Your task to perform on an android device: turn pop-ups on in chrome Image 0: 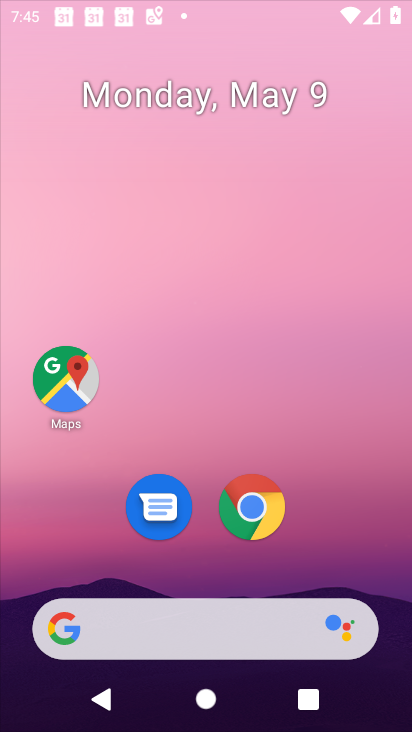
Step 0: click (240, 243)
Your task to perform on an android device: turn pop-ups on in chrome Image 1: 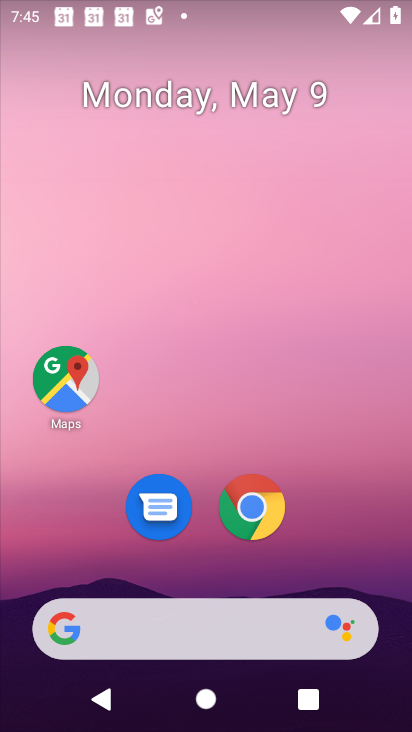
Step 1: drag from (270, 661) to (266, 260)
Your task to perform on an android device: turn pop-ups on in chrome Image 2: 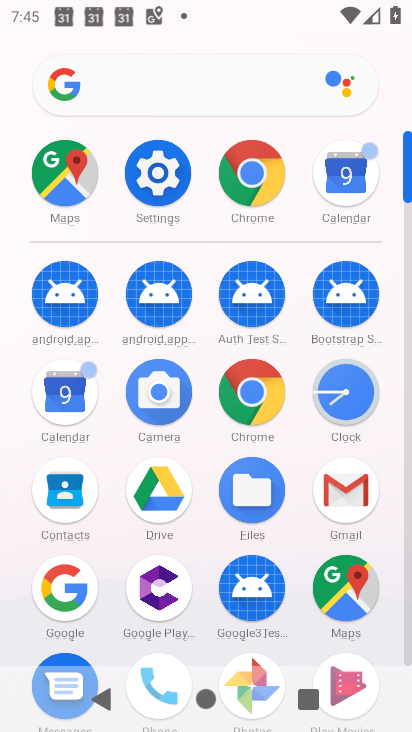
Step 2: click (248, 191)
Your task to perform on an android device: turn pop-ups on in chrome Image 3: 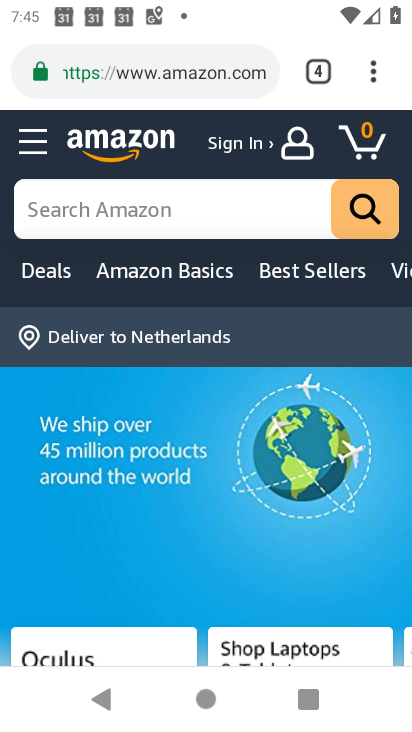
Step 3: click (370, 86)
Your task to perform on an android device: turn pop-ups on in chrome Image 4: 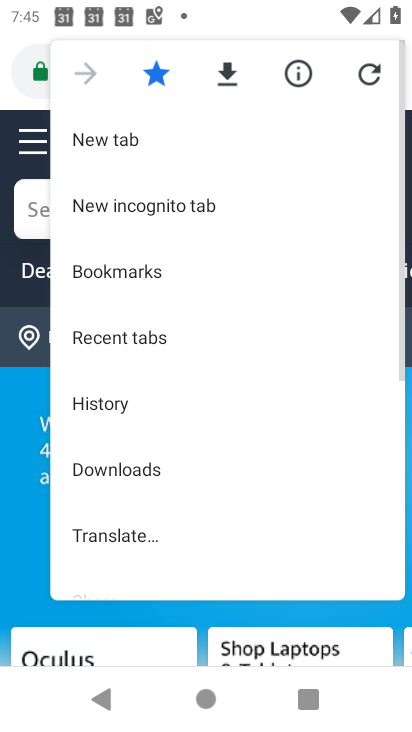
Step 4: drag from (166, 499) to (222, 306)
Your task to perform on an android device: turn pop-ups on in chrome Image 5: 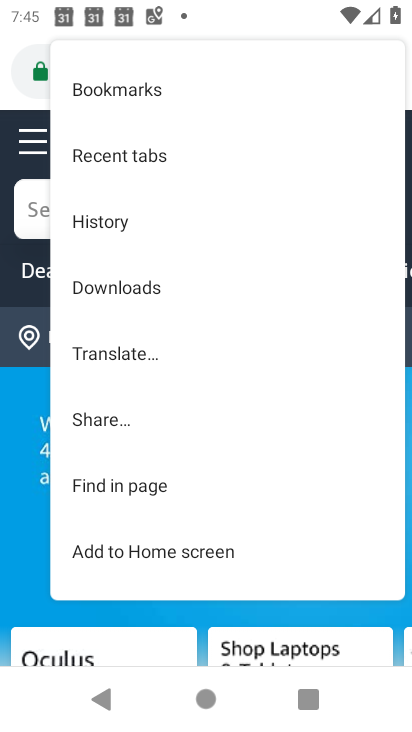
Step 5: drag from (149, 526) to (195, 393)
Your task to perform on an android device: turn pop-ups on in chrome Image 6: 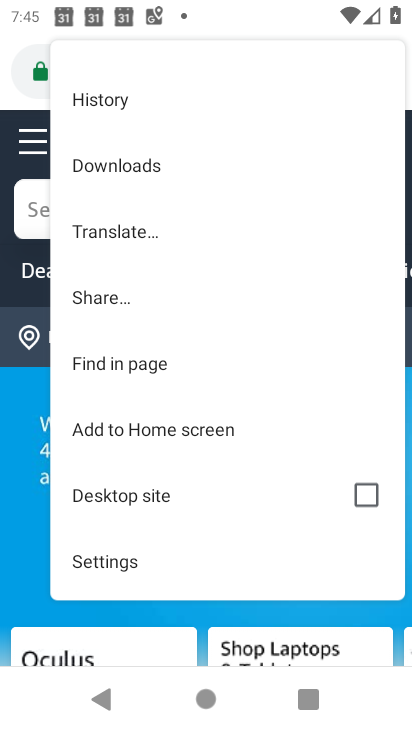
Step 6: click (119, 563)
Your task to perform on an android device: turn pop-ups on in chrome Image 7: 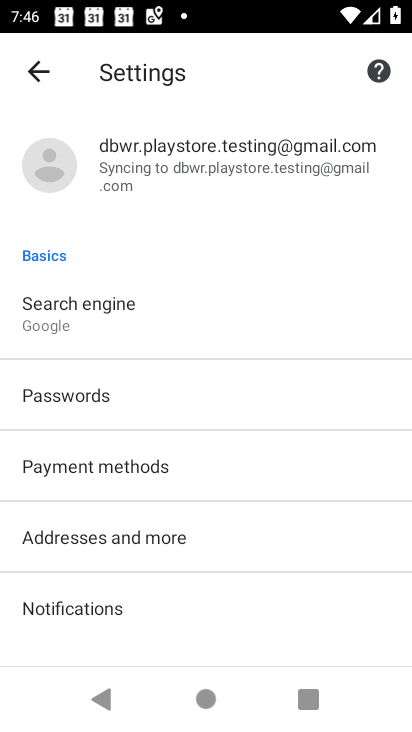
Step 7: drag from (182, 561) to (275, 304)
Your task to perform on an android device: turn pop-ups on in chrome Image 8: 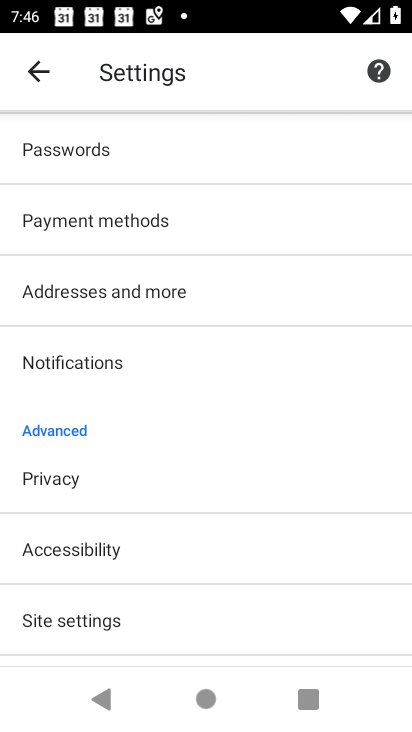
Step 8: click (110, 623)
Your task to perform on an android device: turn pop-ups on in chrome Image 9: 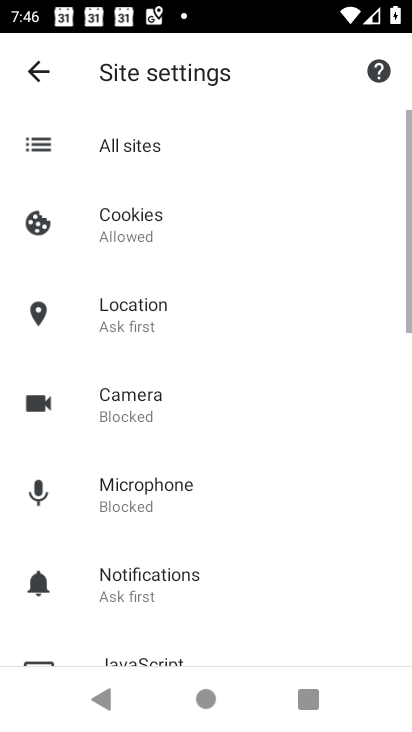
Step 9: drag from (143, 568) to (184, 266)
Your task to perform on an android device: turn pop-ups on in chrome Image 10: 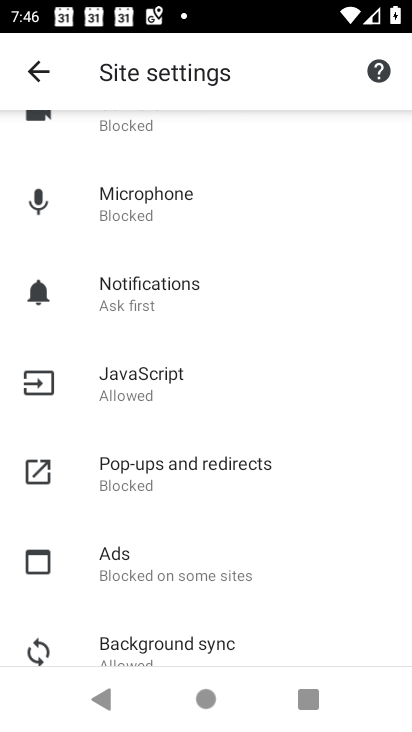
Step 10: click (139, 455)
Your task to perform on an android device: turn pop-ups on in chrome Image 11: 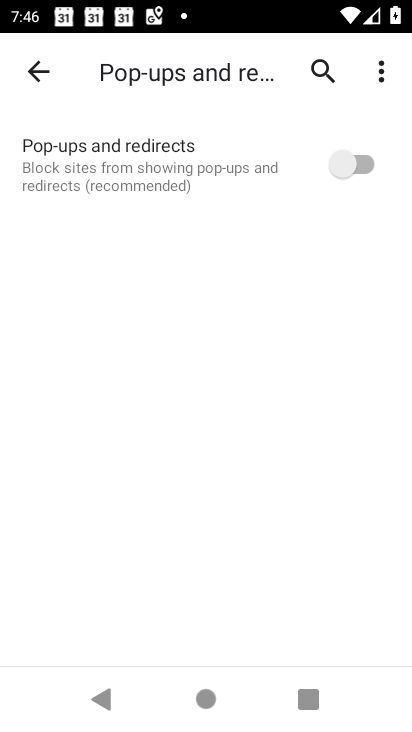
Step 11: click (360, 170)
Your task to perform on an android device: turn pop-ups on in chrome Image 12: 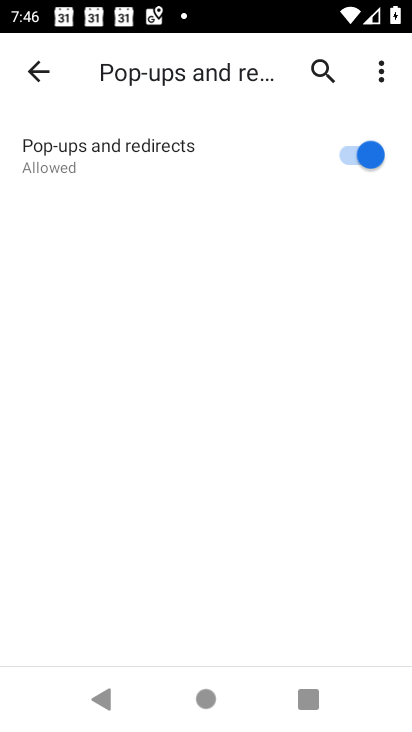
Step 12: task complete